Your task to perform on an android device: Open CNN.com Image 0: 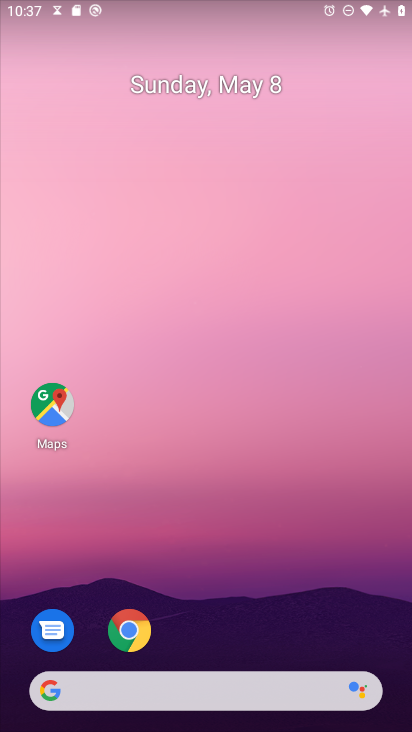
Step 0: click (129, 631)
Your task to perform on an android device: Open CNN.com Image 1: 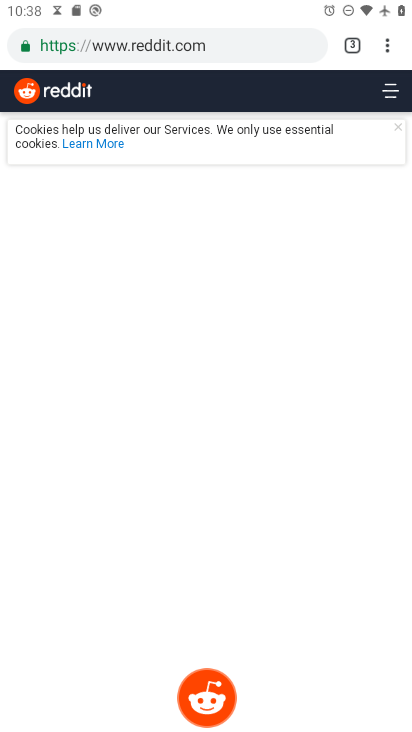
Step 1: drag from (390, 48) to (282, 99)
Your task to perform on an android device: Open CNN.com Image 2: 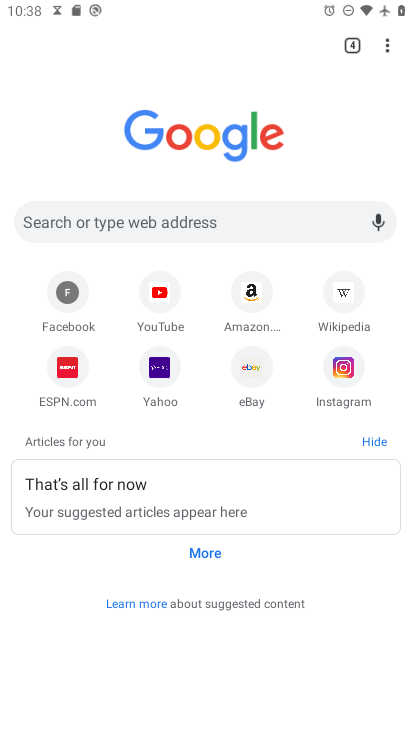
Step 2: click (381, 439)
Your task to perform on an android device: Open CNN.com Image 3: 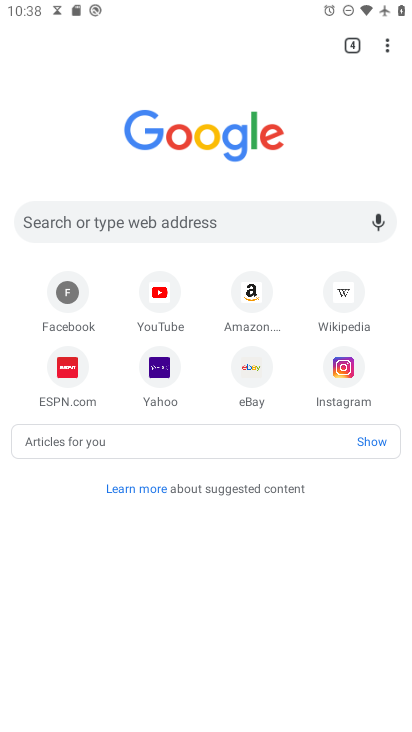
Step 3: click (381, 439)
Your task to perform on an android device: Open CNN.com Image 4: 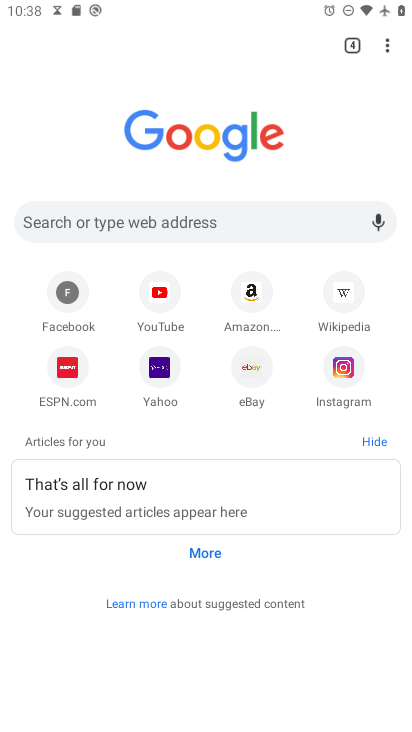
Step 4: click (118, 224)
Your task to perform on an android device: Open CNN.com Image 5: 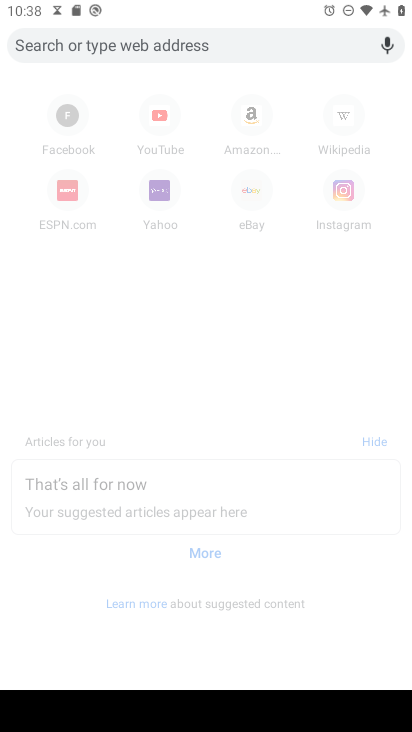
Step 5: type "cnn.com"
Your task to perform on an android device: Open CNN.com Image 6: 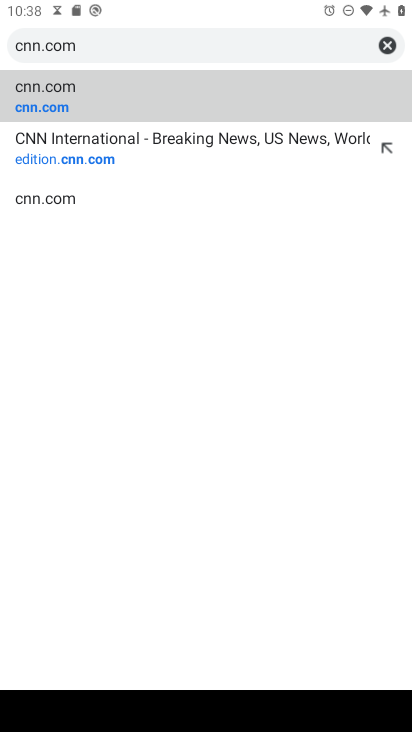
Step 6: click (156, 100)
Your task to perform on an android device: Open CNN.com Image 7: 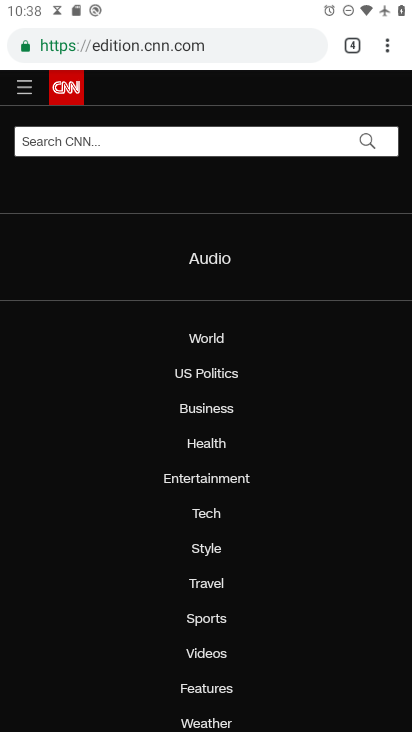
Step 7: task complete